Your task to perform on an android device: Add beats solo 3 to the cart on amazon Image 0: 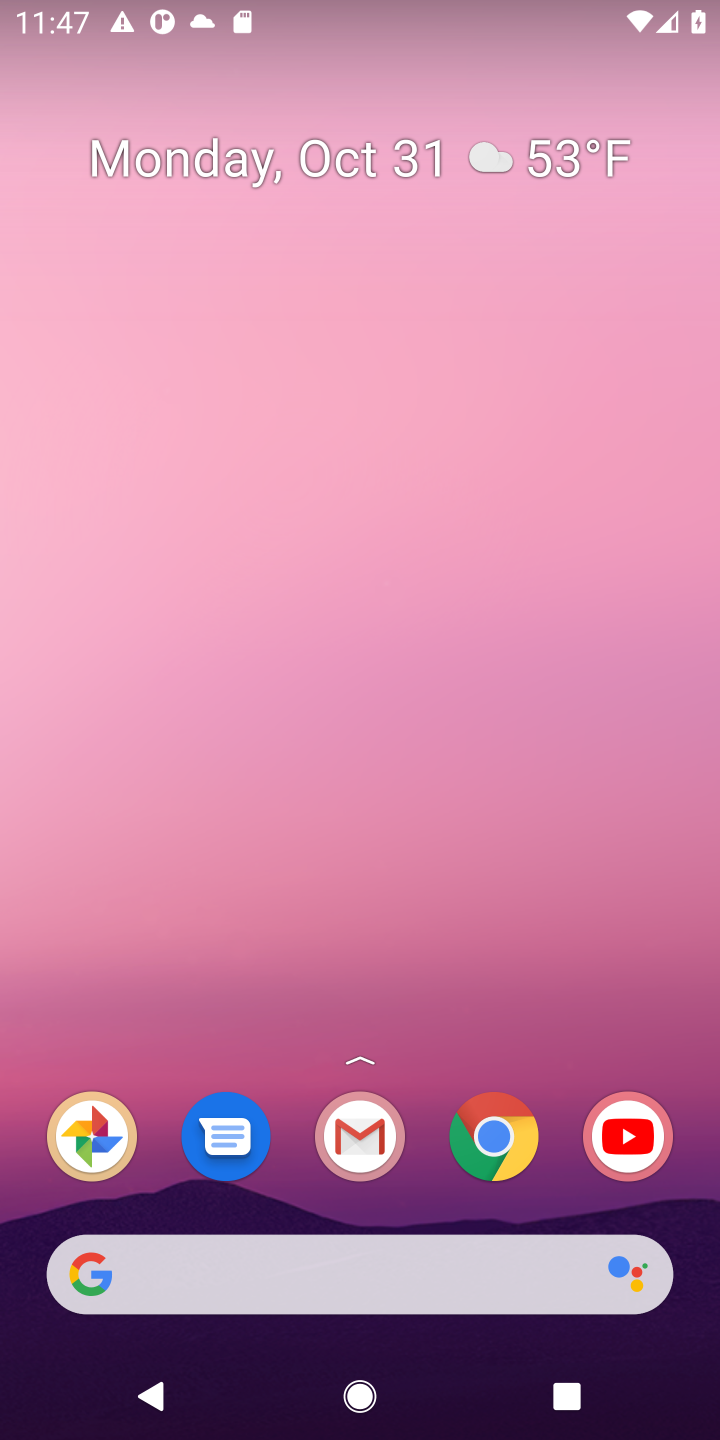
Step 0: press home button
Your task to perform on an android device: Add beats solo 3 to the cart on amazon Image 1: 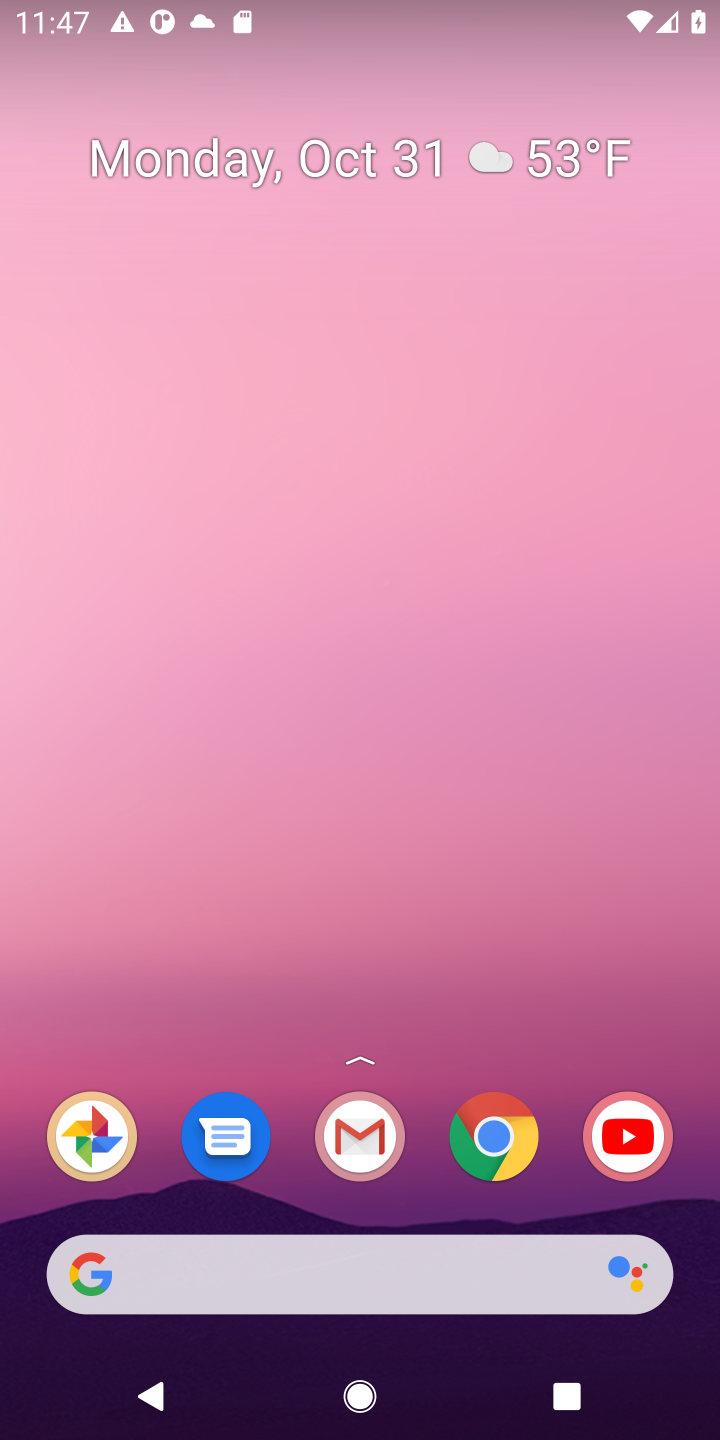
Step 1: click (161, 1255)
Your task to perform on an android device: Add beats solo 3 to the cart on amazon Image 2: 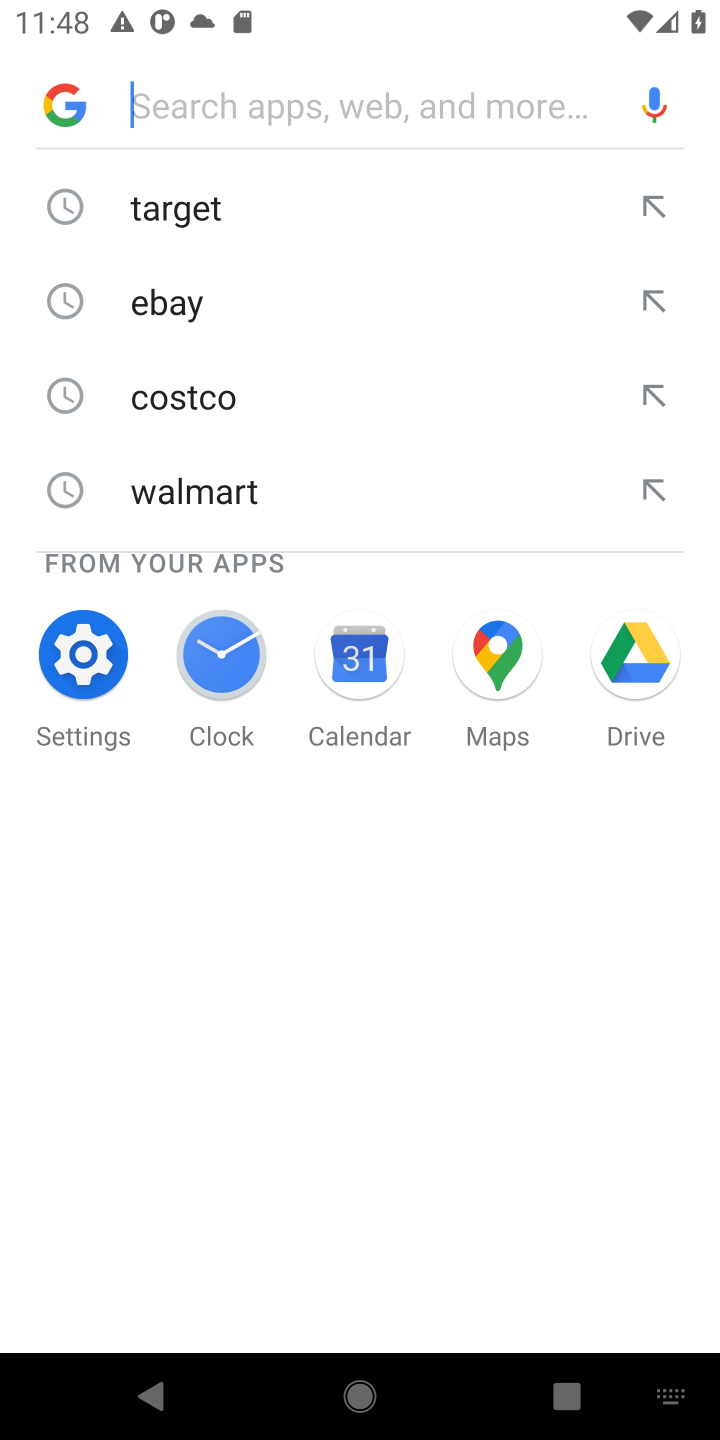
Step 2: press enter
Your task to perform on an android device: Add beats solo 3 to the cart on amazon Image 3: 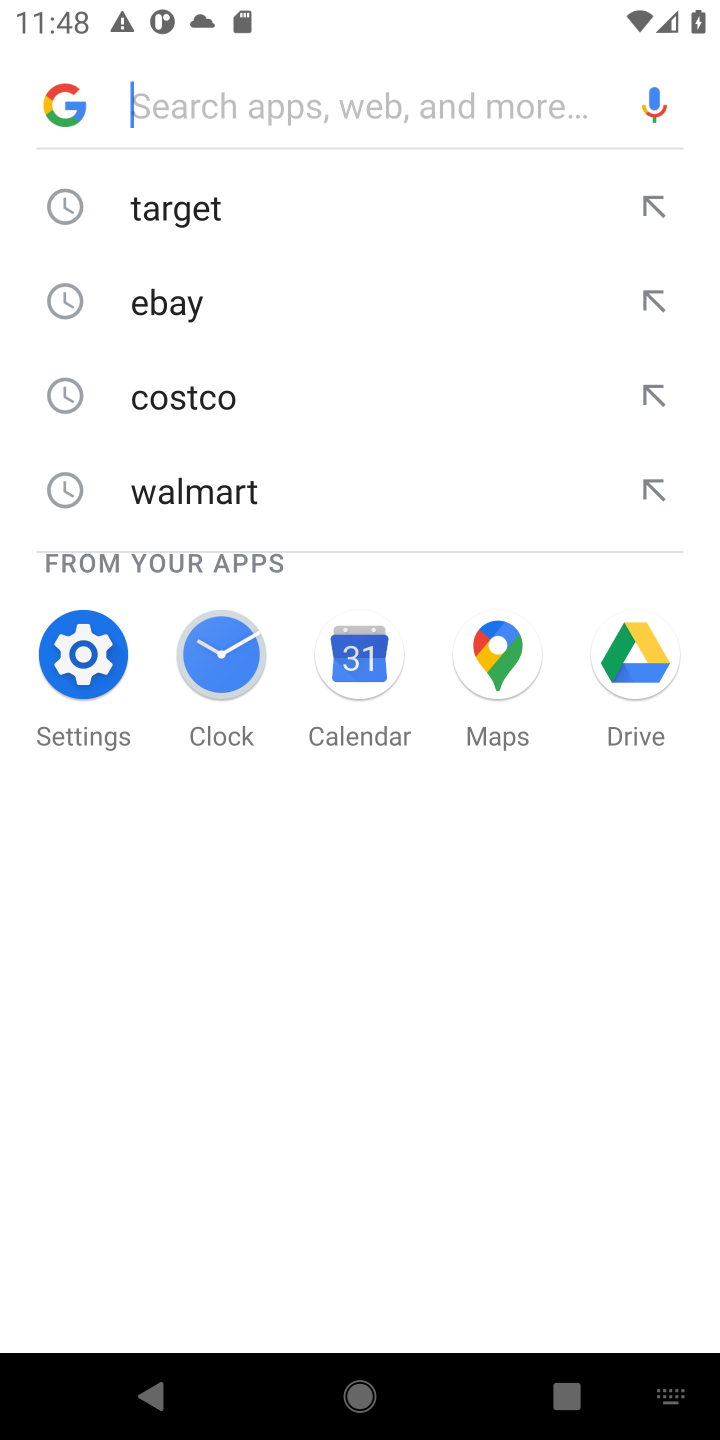
Step 3: type "amazon"
Your task to perform on an android device: Add beats solo 3 to the cart on amazon Image 4: 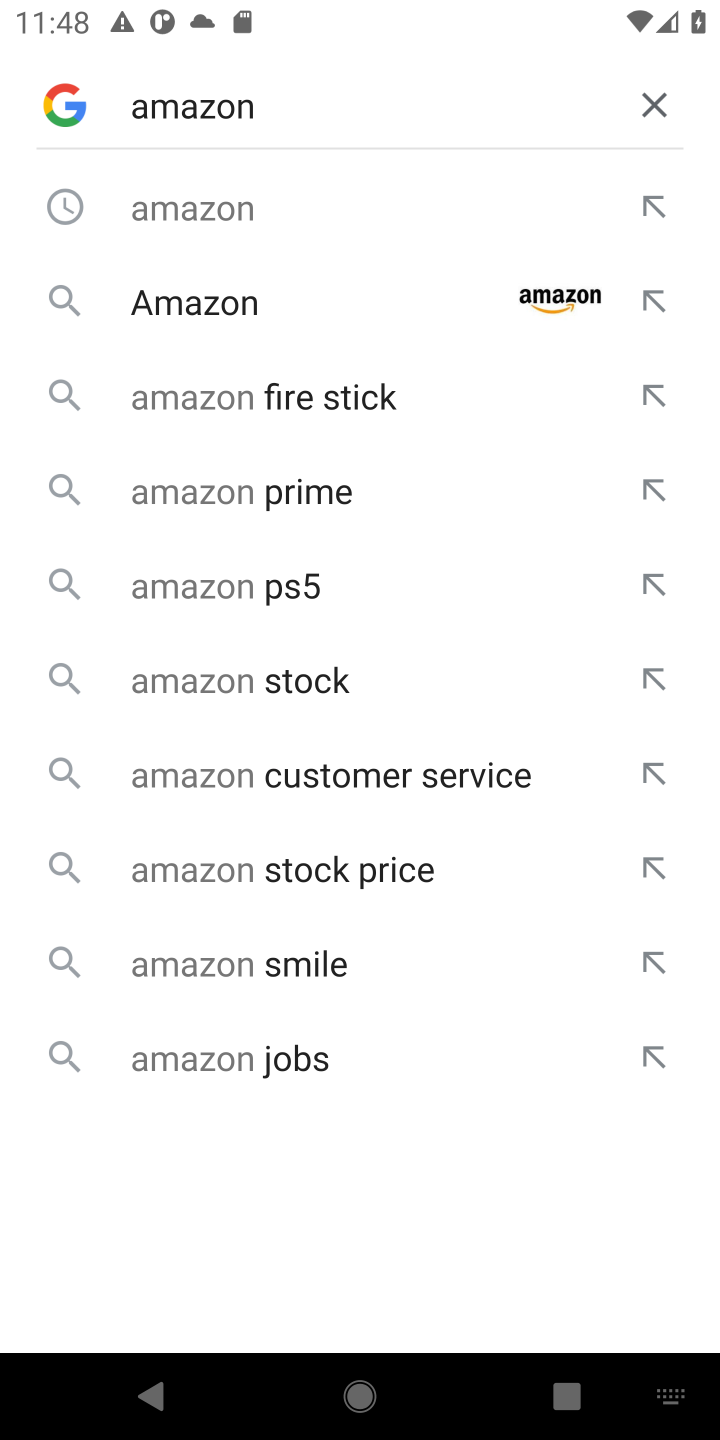
Step 4: press enter
Your task to perform on an android device: Add beats solo 3 to the cart on amazon Image 5: 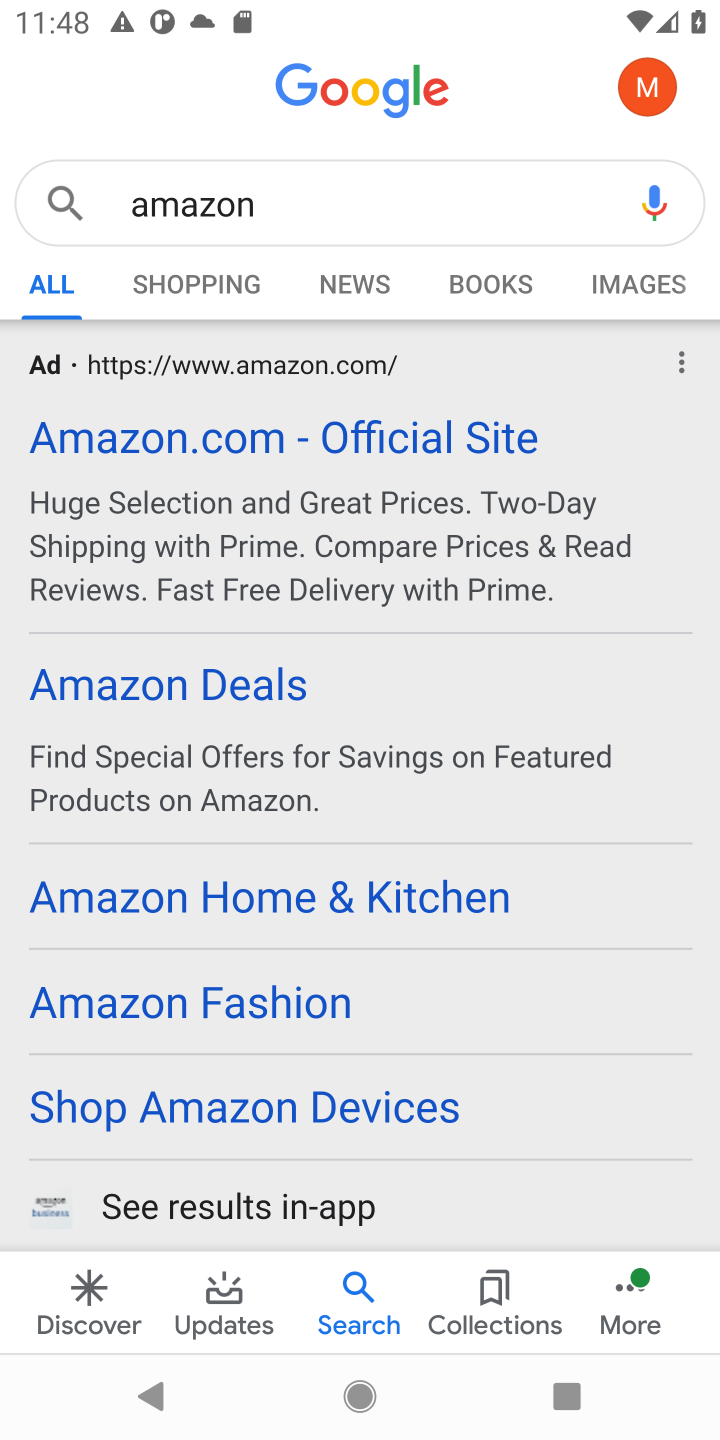
Step 5: click (210, 444)
Your task to perform on an android device: Add beats solo 3 to the cart on amazon Image 6: 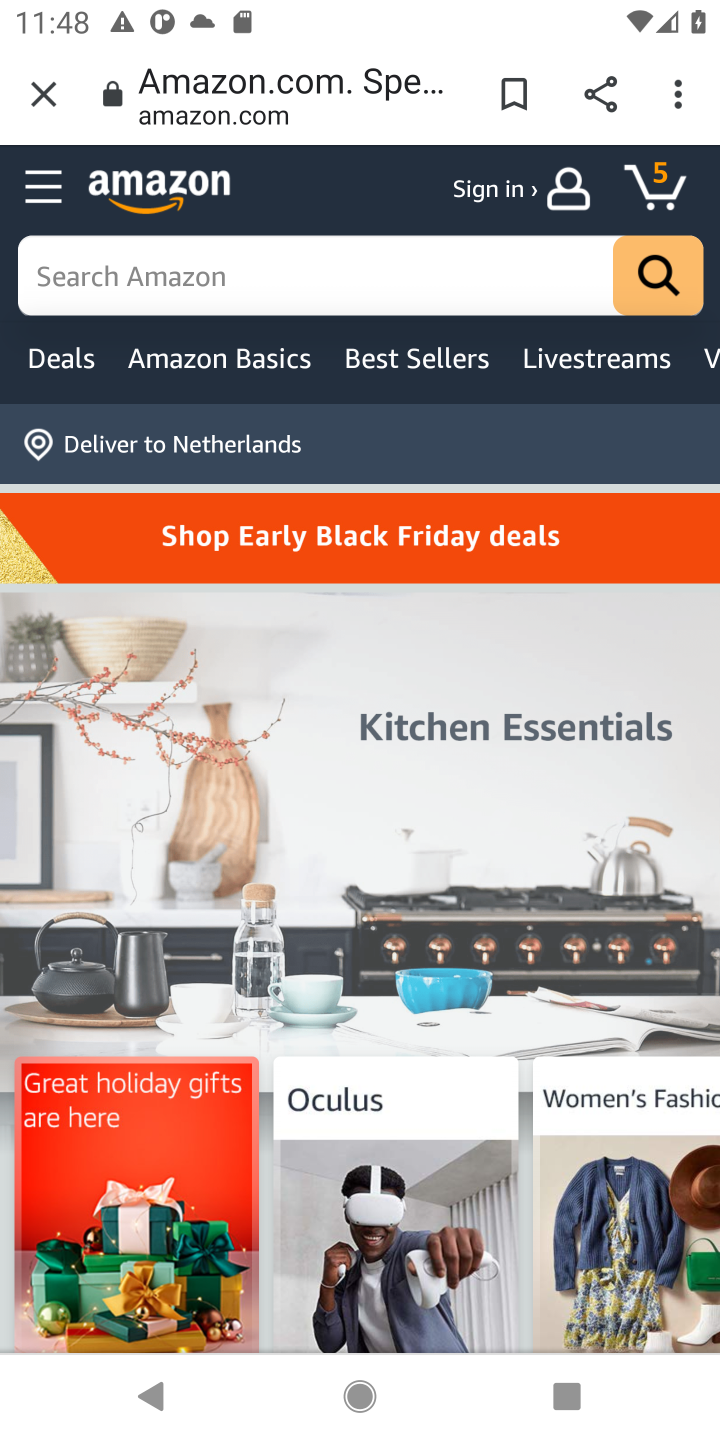
Step 6: click (70, 280)
Your task to perform on an android device: Add beats solo 3 to the cart on amazon Image 7: 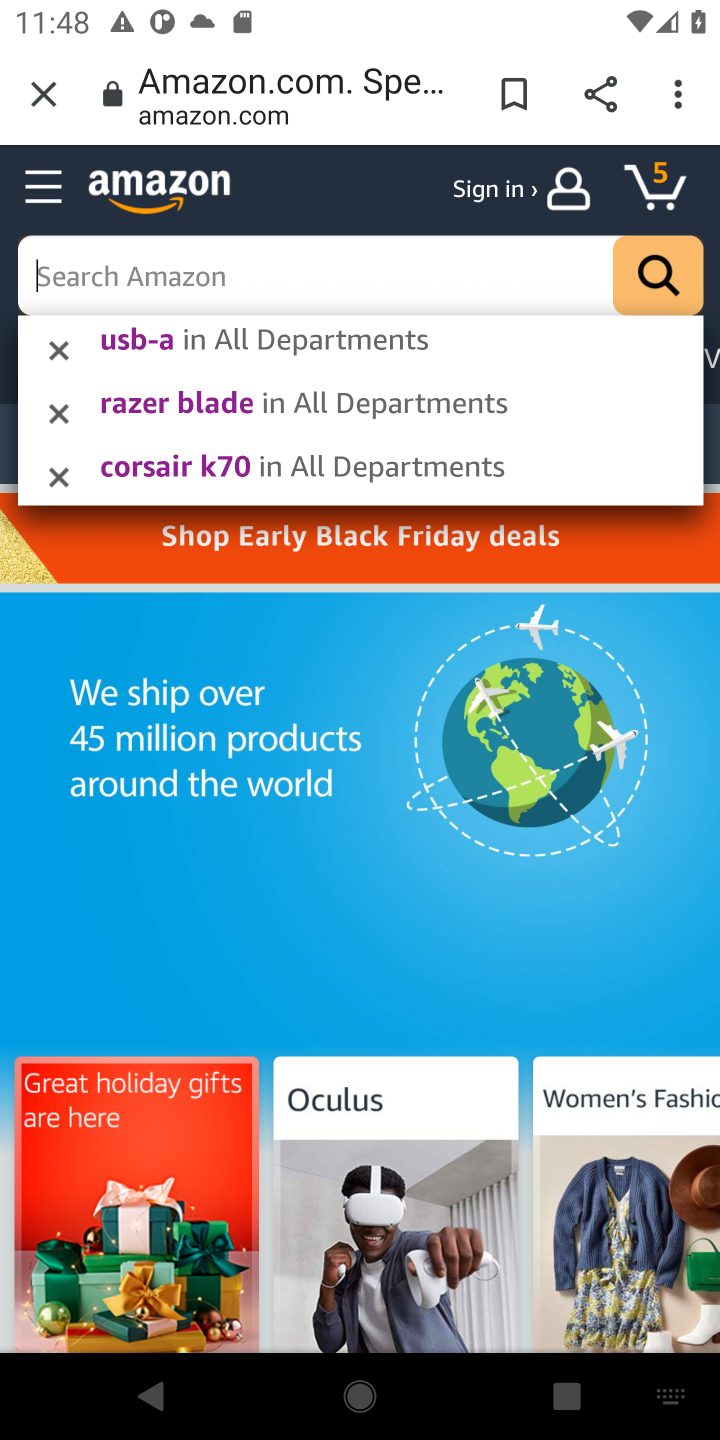
Step 7: type "beats solo 3"
Your task to perform on an android device: Add beats solo 3 to the cart on amazon Image 8: 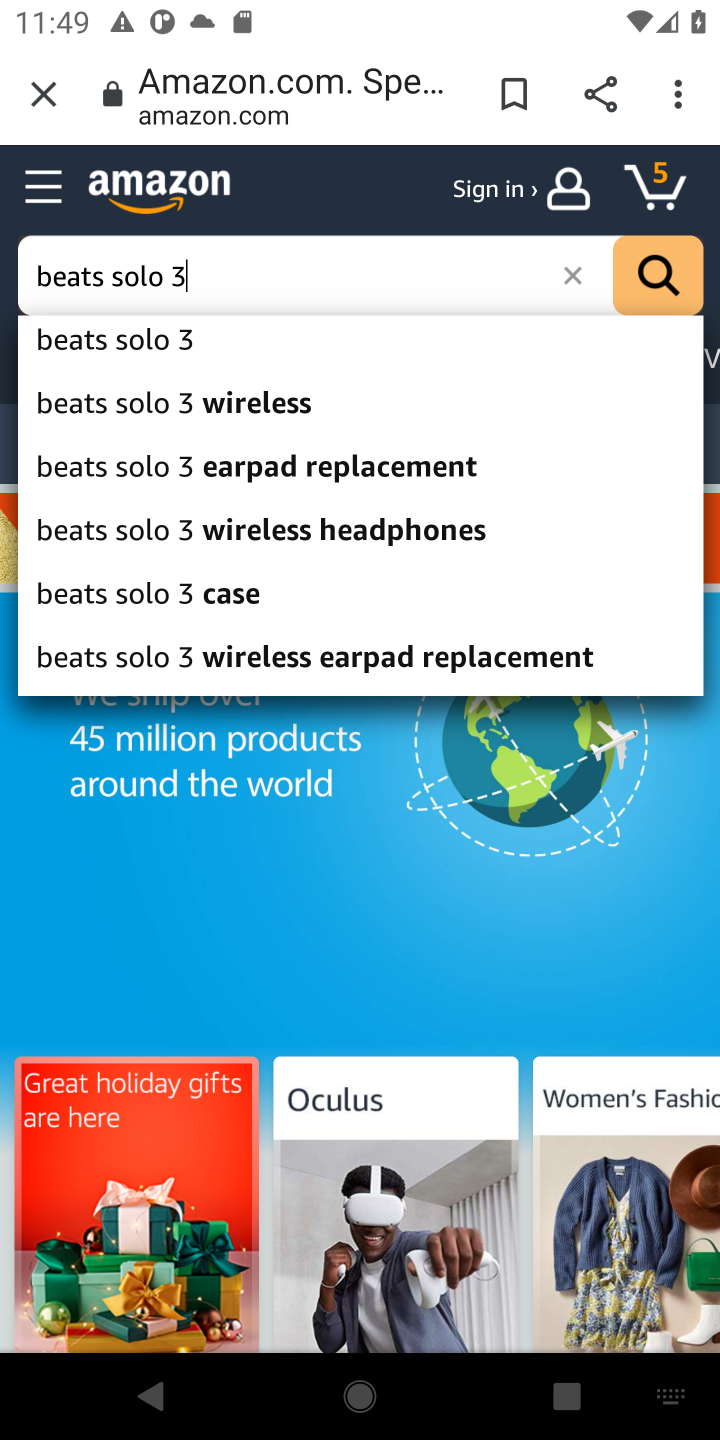
Step 8: click (654, 278)
Your task to perform on an android device: Add beats solo 3 to the cart on amazon Image 9: 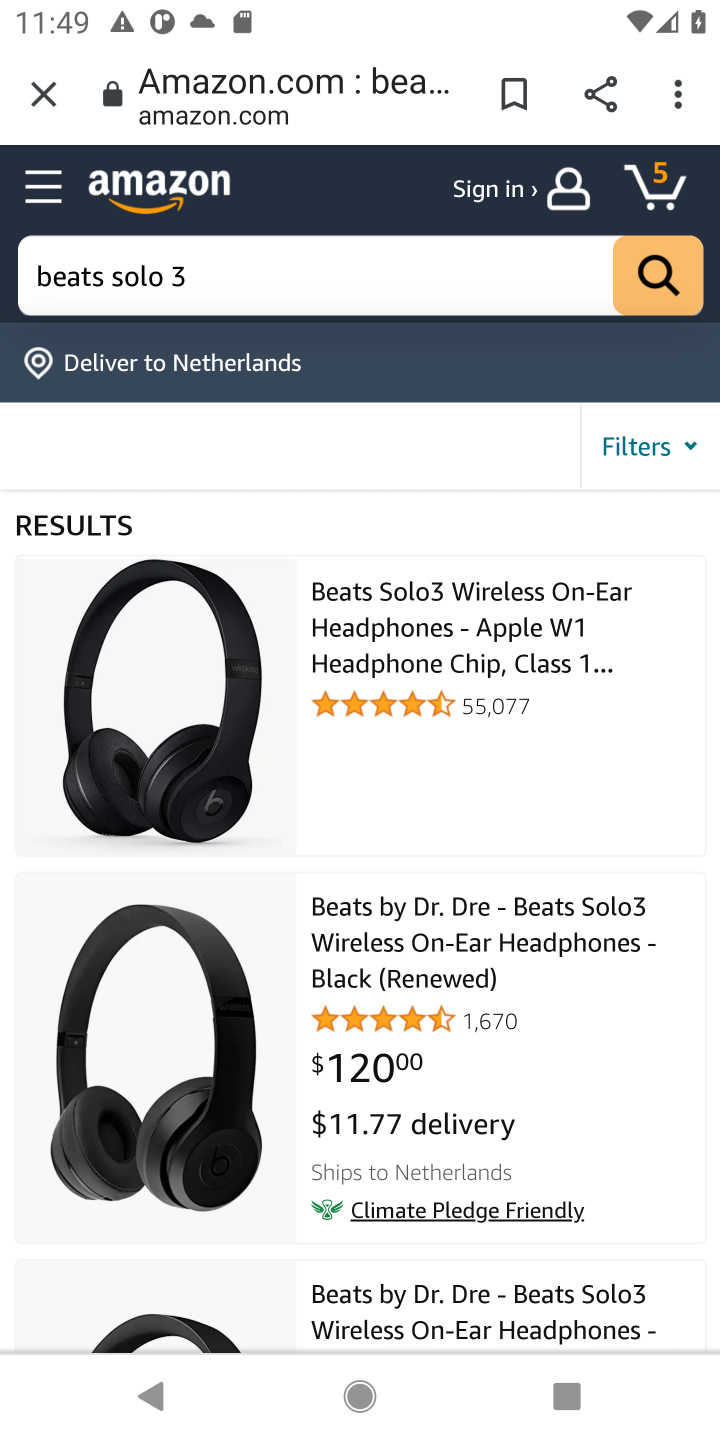
Step 9: click (413, 612)
Your task to perform on an android device: Add beats solo 3 to the cart on amazon Image 10: 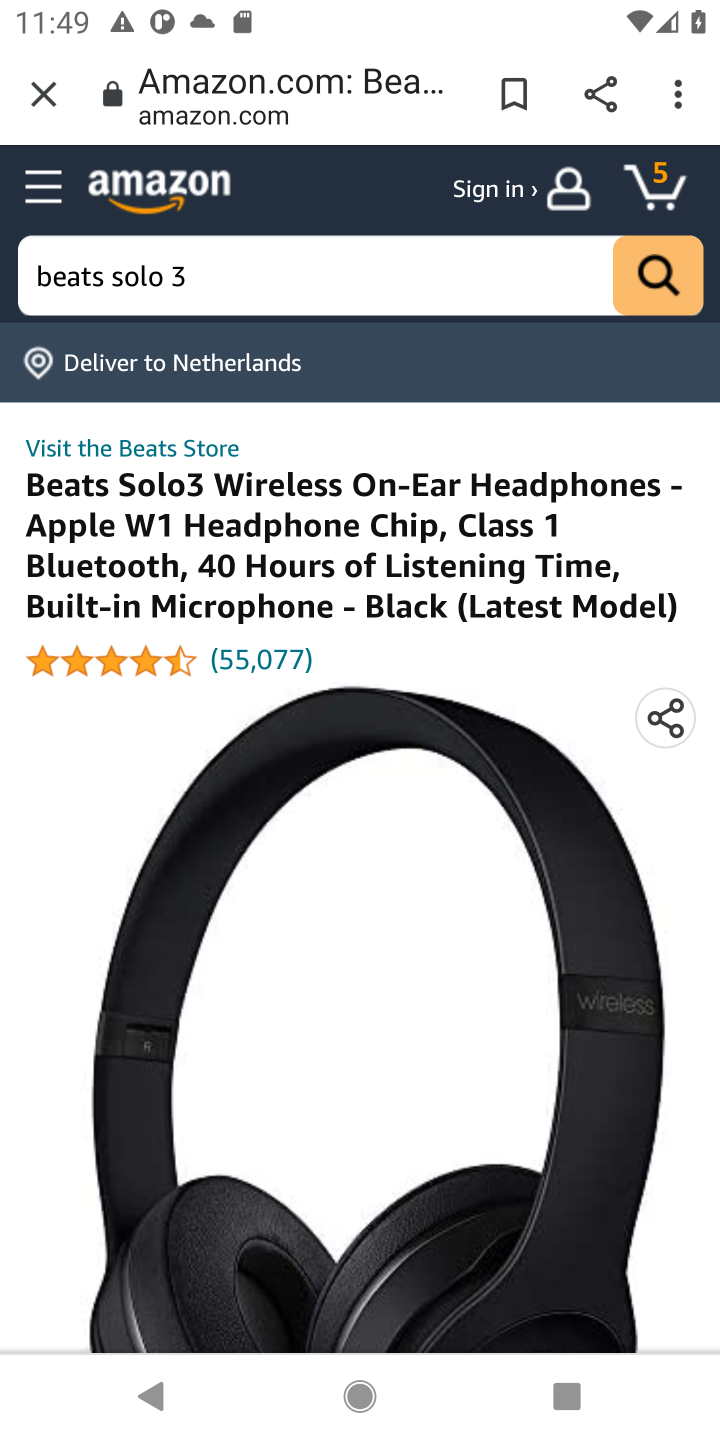
Step 10: task complete